Your task to perform on an android device: Open my contact list Image 0: 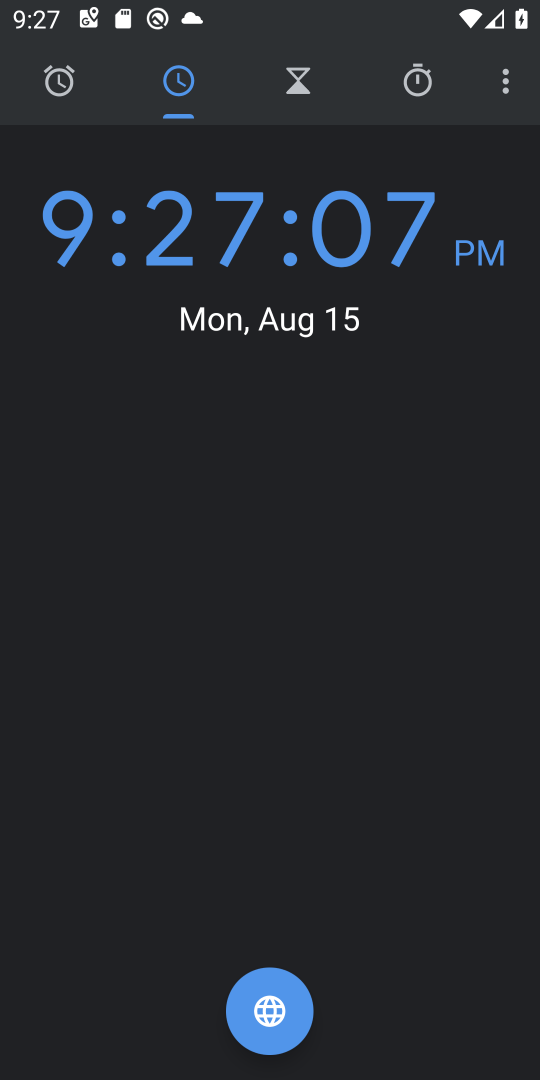
Step 0: press home button
Your task to perform on an android device: Open my contact list Image 1: 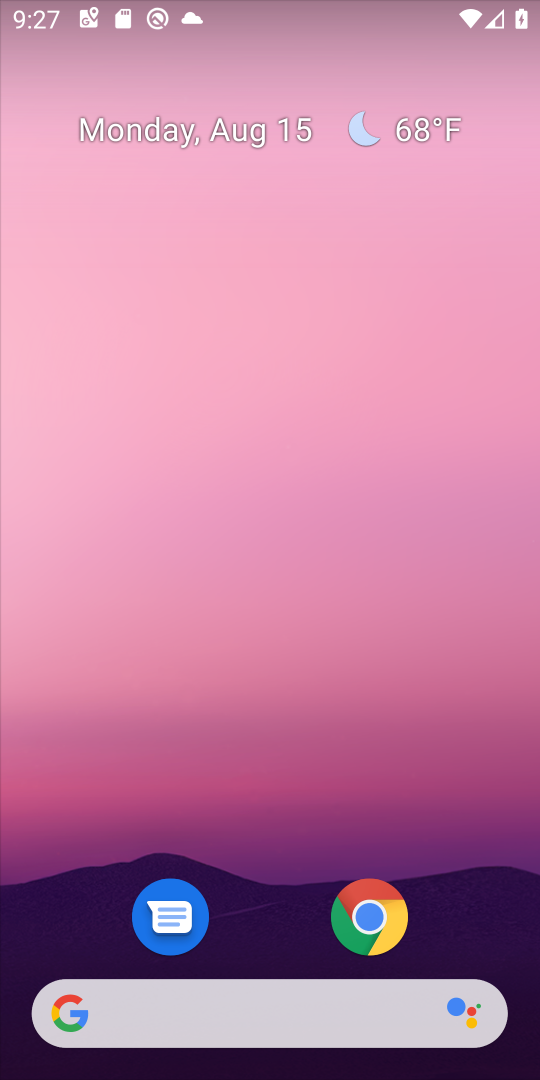
Step 1: drag from (297, 826) to (293, 0)
Your task to perform on an android device: Open my contact list Image 2: 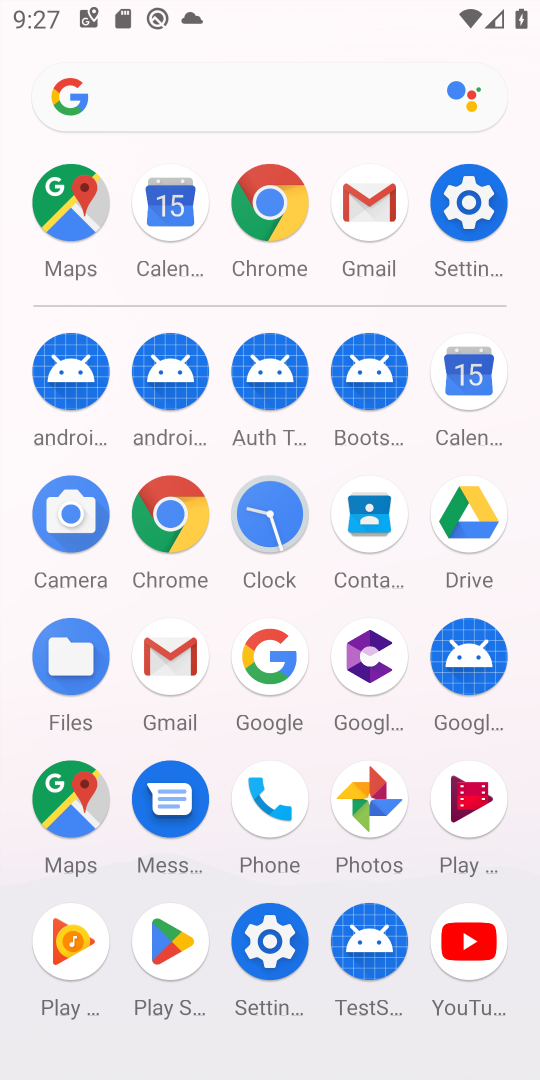
Step 2: click (375, 512)
Your task to perform on an android device: Open my contact list Image 3: 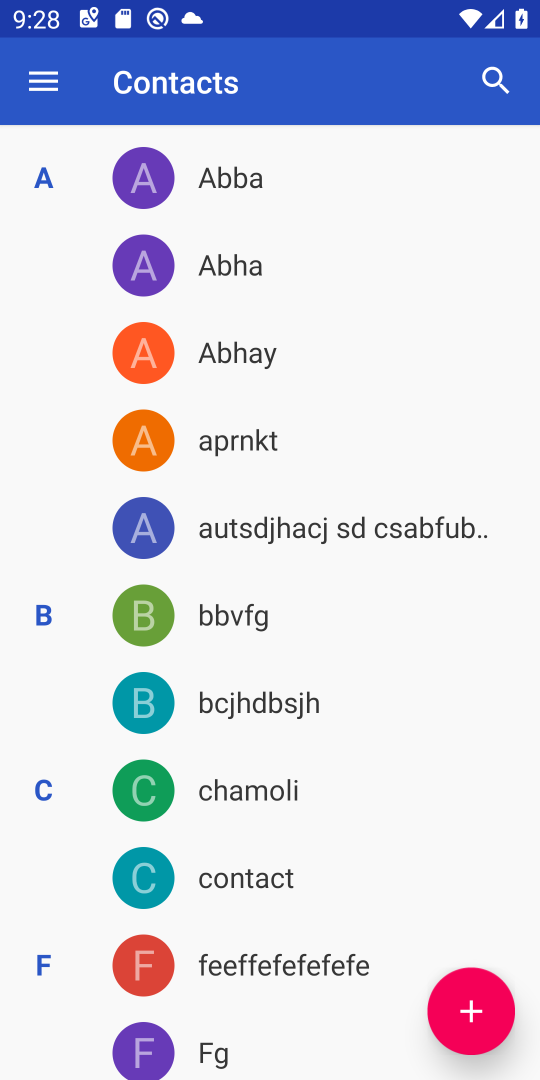
Step 3: task complete